Your task to perform on an android device: turn on notifications settings in the gmail app Image 0: 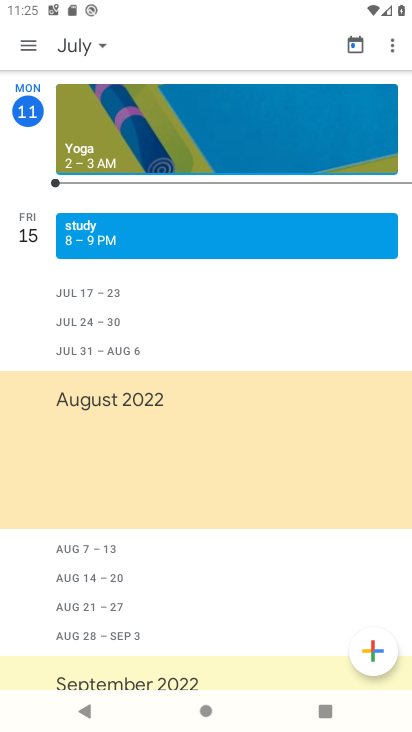
Step 0: press back button
Your task to perform on an android device: turn on notifications settings in the gmail app Image 1: 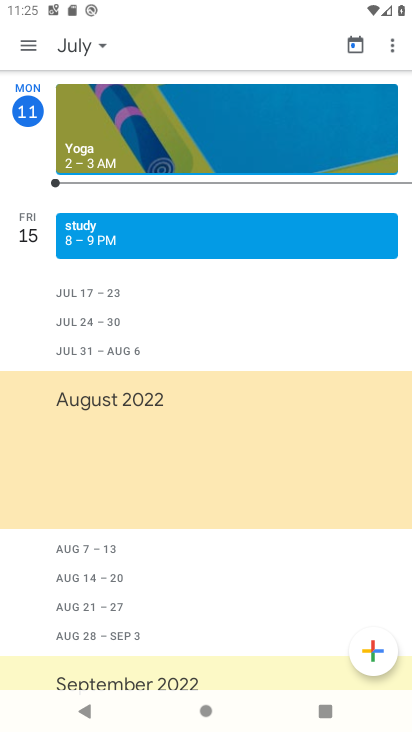
Step 1: press back button
Your task to perform on an android device: turn on notifications settings in the gmail app Image 2: 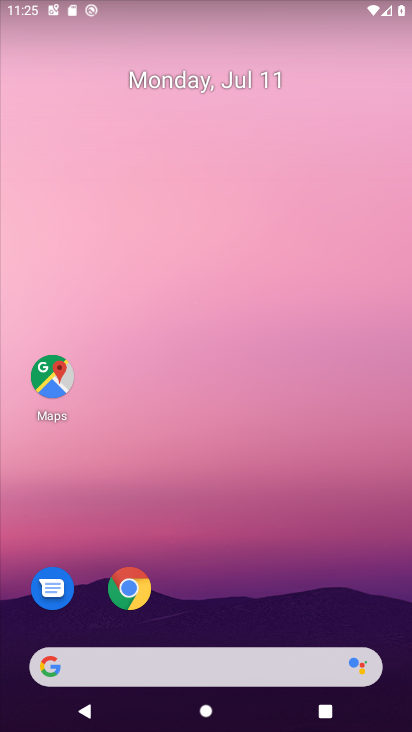
Step 2: drag from (266, 674) to (188, 207)
Your task to perform on an android device: turn on notifications settings in the gmail app Image 3: 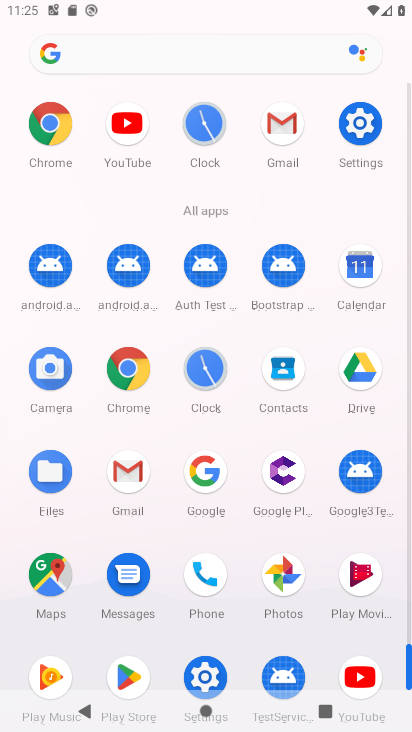
Step 3: click (360, 137)
Your task to perform on an android device: turn on notifications settings in the gmail app Image 4: 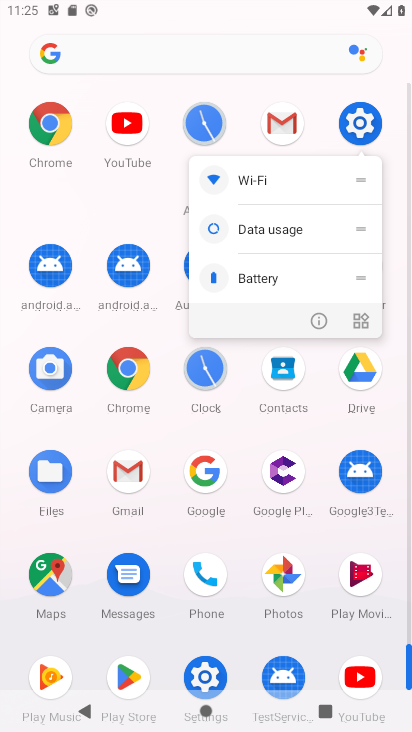
Step 4: click (346, 123)
Your task to perform on an android device: turn on notifications settings in the gmail app Image 5: 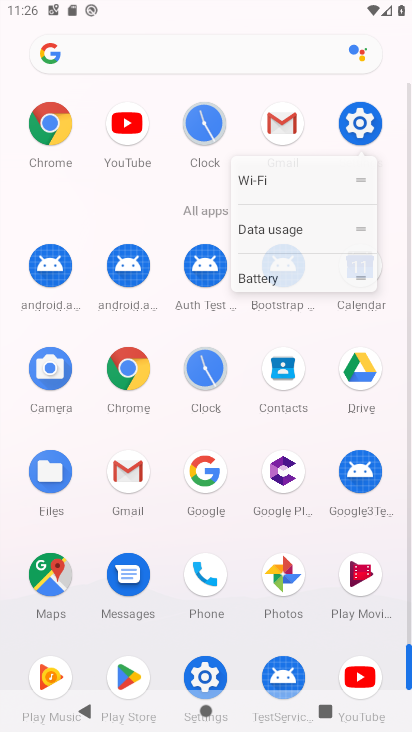
Step 5: click (347, 123)
Your task to perform on an android device: turn on notifications settings in the gmail app Image 6: 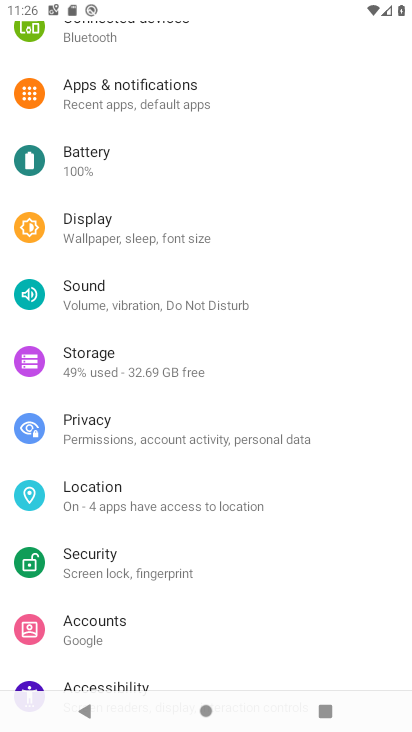
Step 6: click (124, 115)
Your task to perform on an android device: turn on notifications settings in the gmail app Image 7: 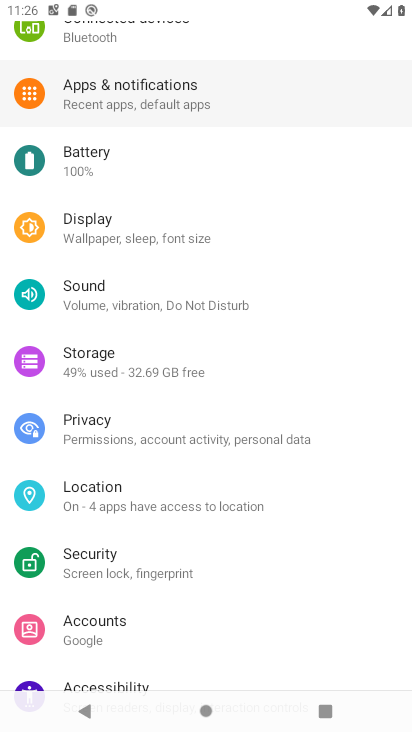
Step 7: click (122, 113)
Your task to perform on an android device: turn on notifications settings in the gmail app Image 8: 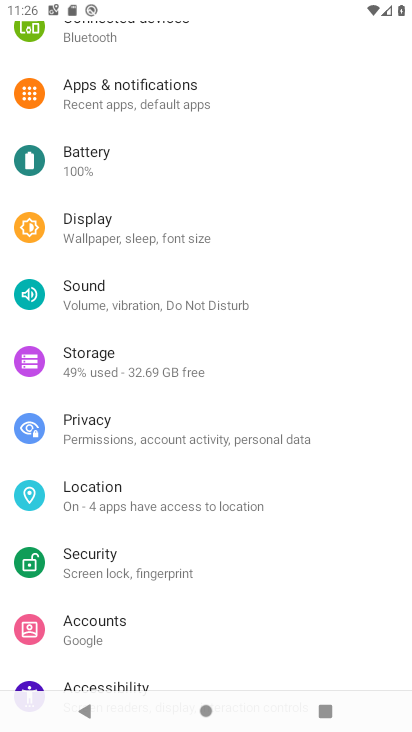
Step 8: click (122, 113)
Your task to perform on an android device: turn on notifications settings in the gmail app Image 9: 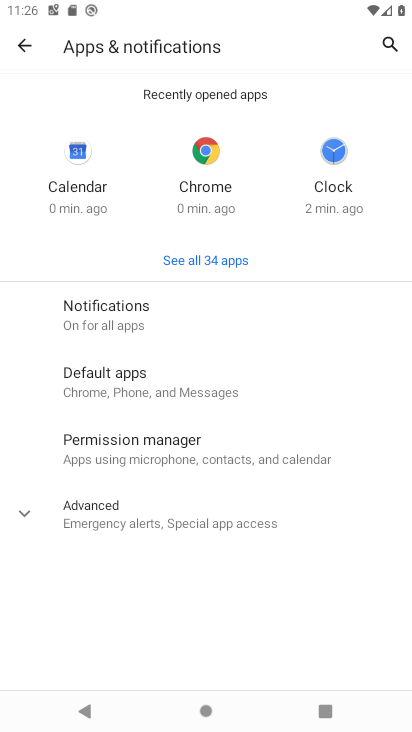
Step 9: click (122, 312)
Your task to perform on an android device: turn on notifications settings in the gmail app Image 10: 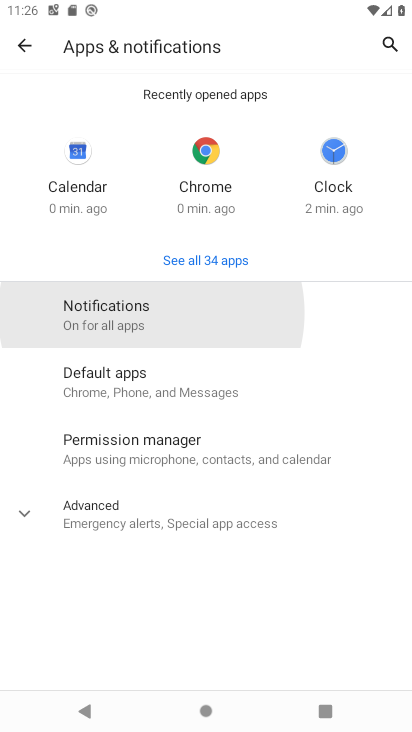
Step 10: click (126, 298)
Your task to perform on an android device: turn on notifications settings in the gmail app Image 11: 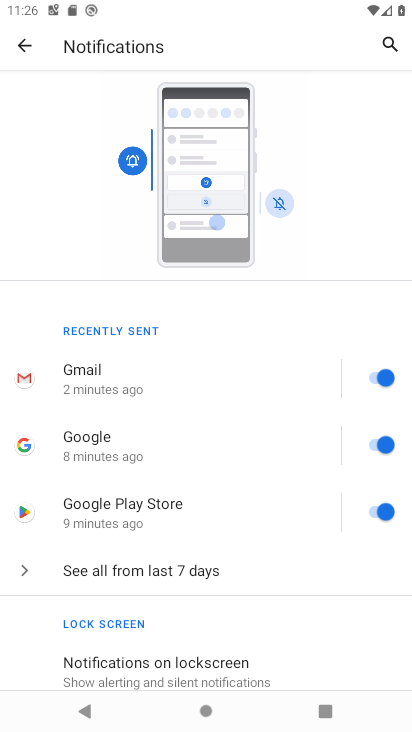
Step 11: drag from (121, 294) to (188, 343)
Your task to perform on an android device: turn on notifications settings in the gmail app Image 12: 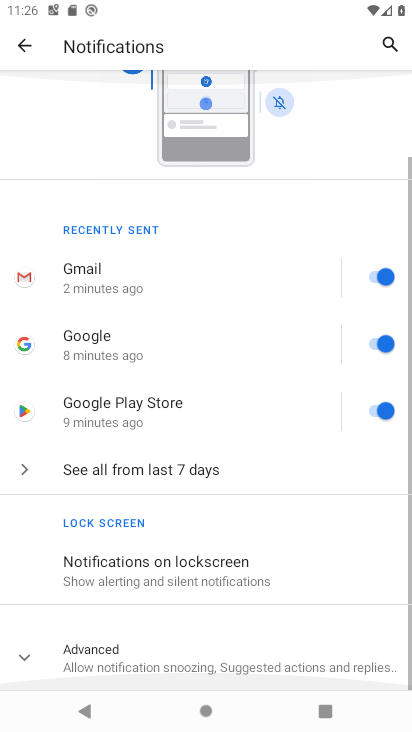
Step 12: drag from (126, 349) to (103, 208)
Your task to perform on an android device: turn on notifications settings in the gmail app Image 13: 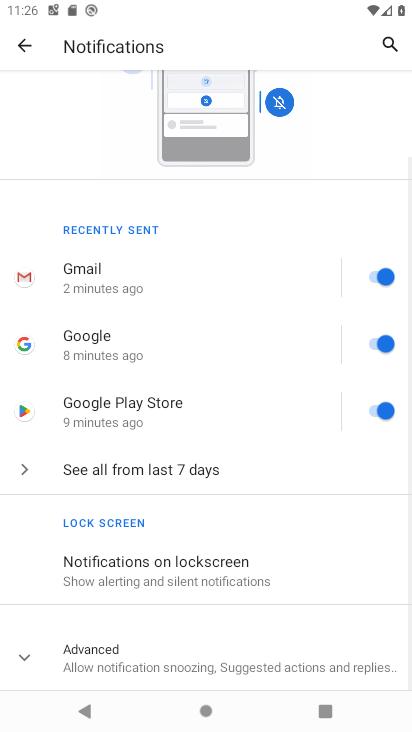
Step 13: click (210, 304)
Your task to perform on an android device: turn on notifications settings in the gmail app Image 14: 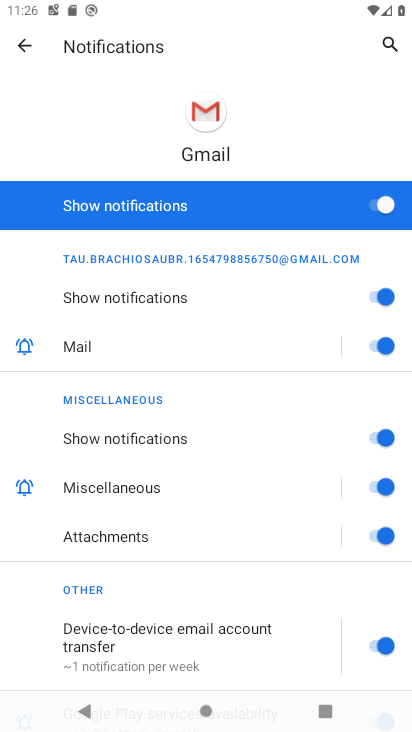
Step 14: task complete